Your task to perform on an android device: find photos in the google photos app Image 0: 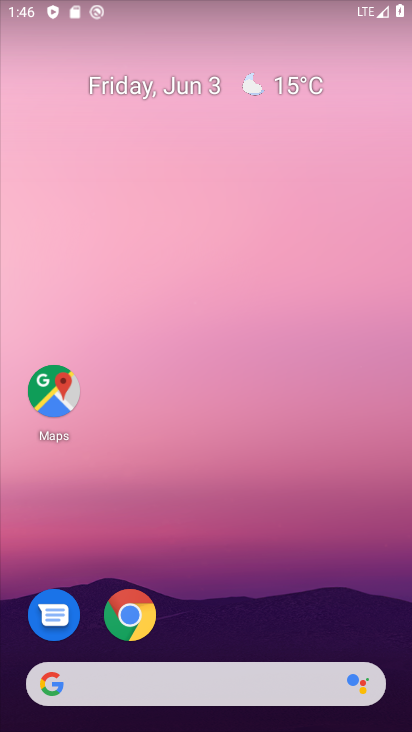
Step 0: click (217, 105)
Your task to perform on an android device: find photos in the google photos app Image 1: 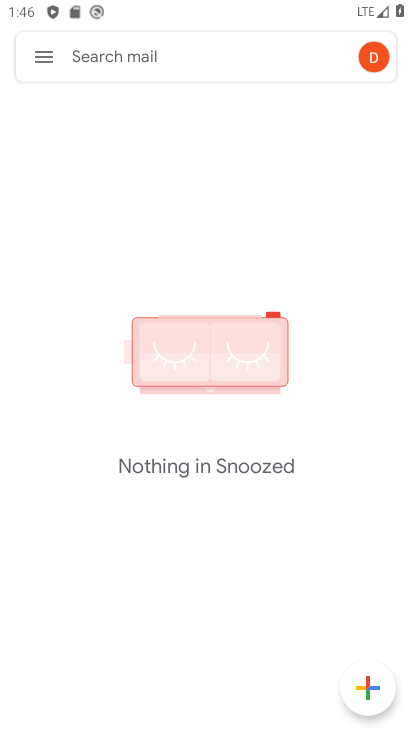
Step 1: drag from (265, 636) to (311, 71)
Your task to perform on an android device: find photos in the google photos app Image 2: 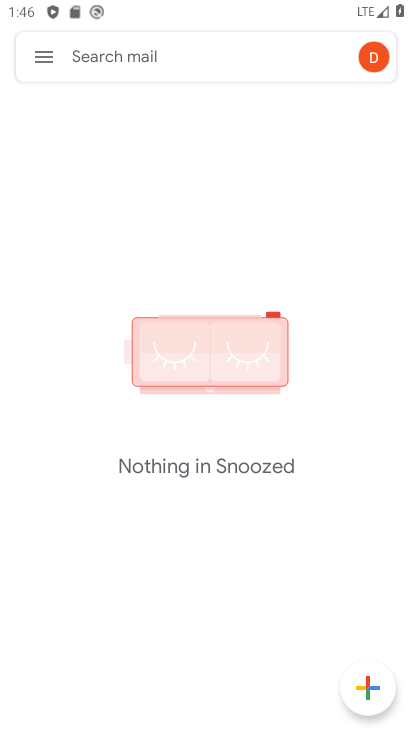
Step 2: press home button
Your task to perform on an android device: find photos in the google photos app Image 3: 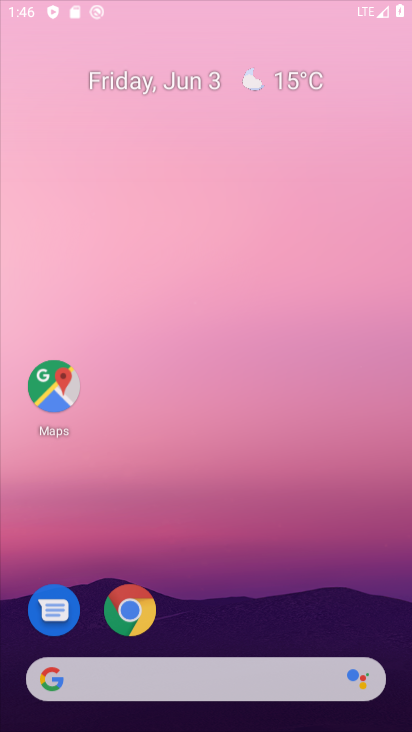
Step 3: click (398, 144)
Your task to perform on an android device: find photos in the google photos app Image 4: 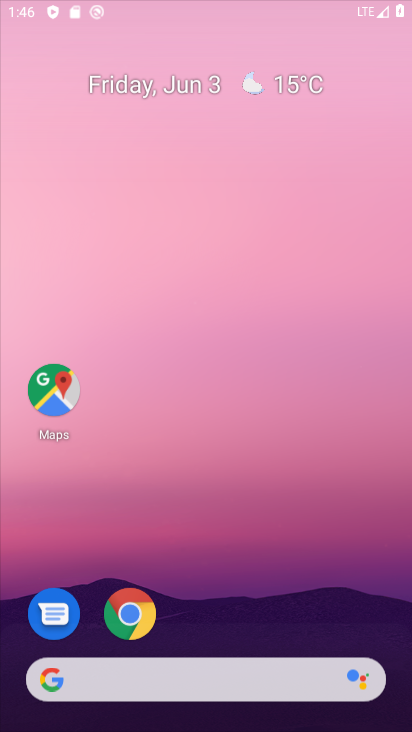
Step 4: drag from (285, 521) to (313, 87)
Your task to perform on an android device: find photos in the google photos app Image 5: 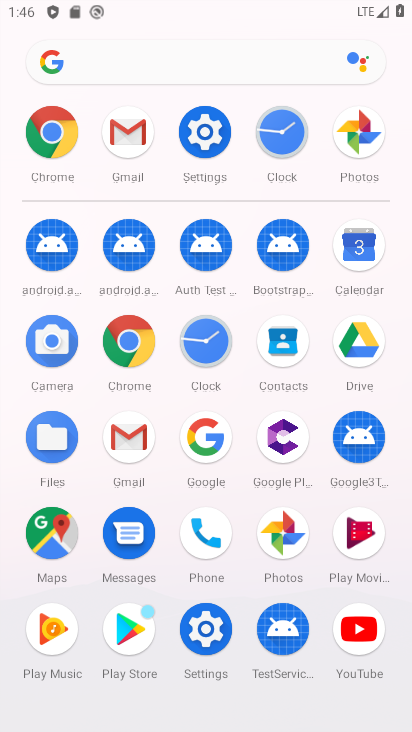
Step 5: click (277, 516)
Your task to perform on an android device: find photos in the google photos app Image 6: 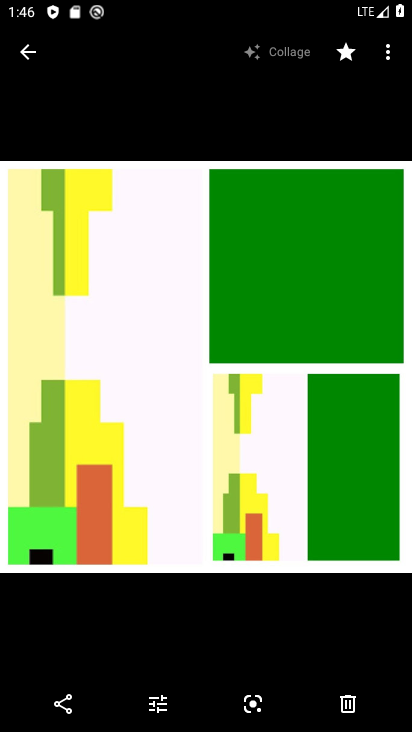
Step 6: click (27, 57)
Your task to perform on an android device: find photos in the google photos app Image 7: 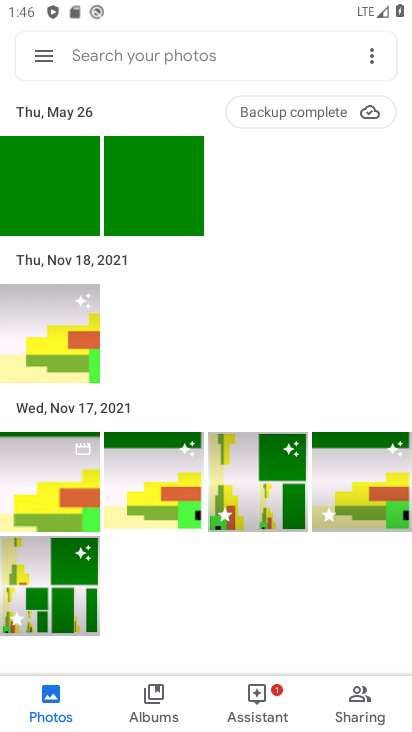
Step 7: drag from (276, 592) to (287, 141)
Your task to perform on an android device: find photos in the google photos app Image 8: 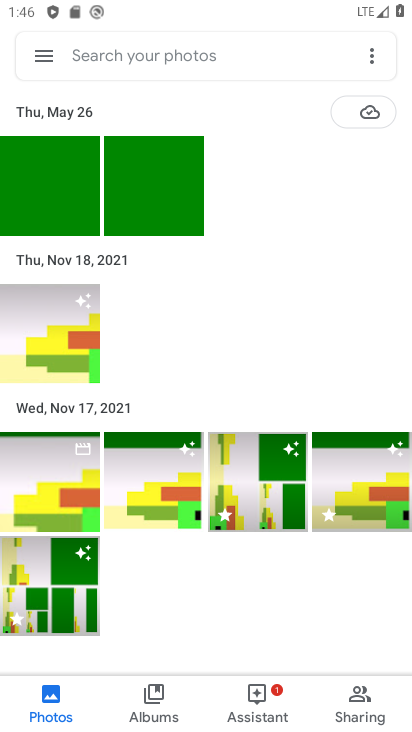
Step 8: drag from (252, 198) to (321, 584)
Your task to perform on an android device: find photos in the google photos app Image 9: 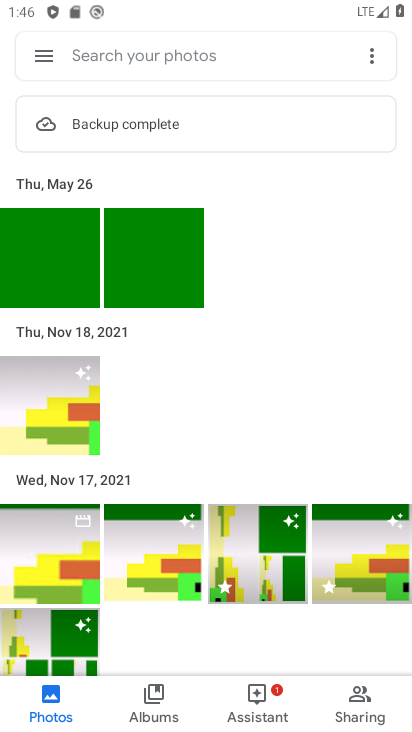
Step 9: drag from (240, 629) to (250, 290)
Your task to perform on an android device: find photos in the google photos app Image 10: 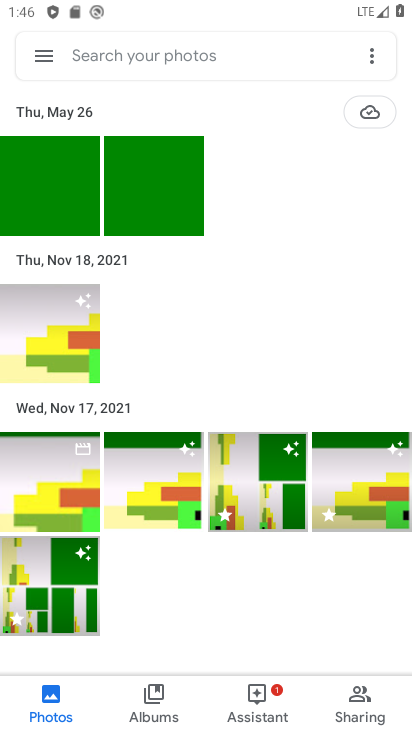
Step 10: drag from (219, 198) to (300, 515)
Your task to perform on an android device: find photos in the google photos app Image 11: 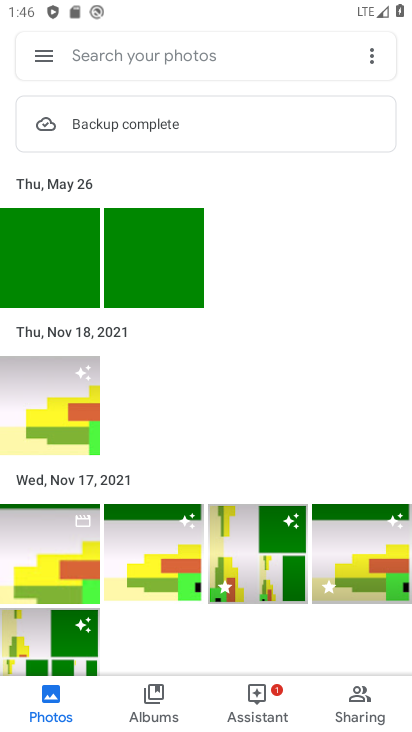
Step 11: click (129, 593)
Your task to perform on an android device: find photos in the google photos app Image 12: 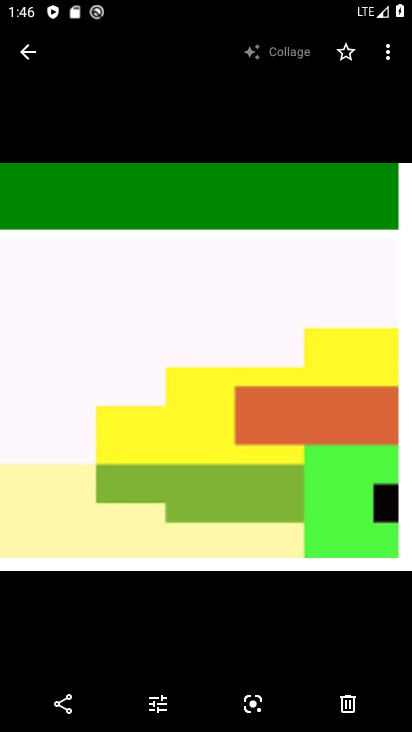
Step 12: task complete